Your task to perform on an android device: turn off notifications in google photos Image 0: 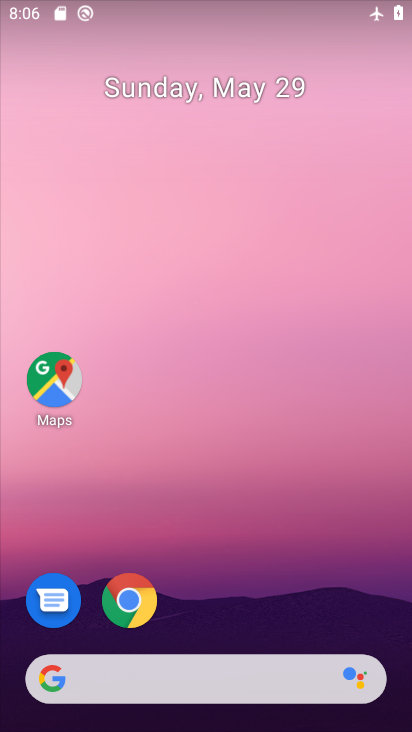
Step 0: drag from (226, 625) to (291, 5)
Your task to perform on an android device: turn off notifications in google photos Image 1: 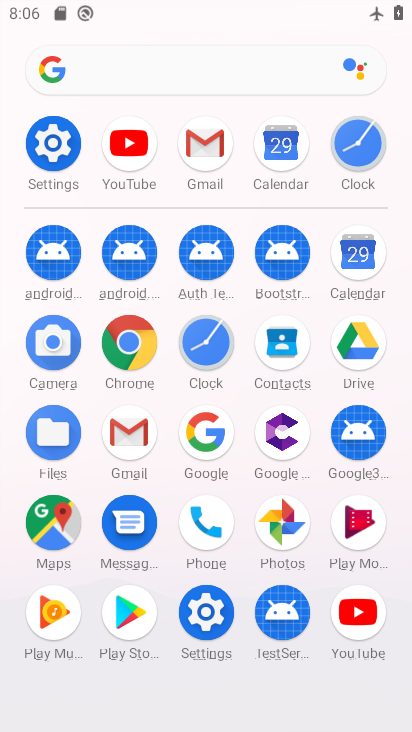
Step 1: click (292, 526)
Your task to perform on an android device: turn off notifications in google photos Image 2: 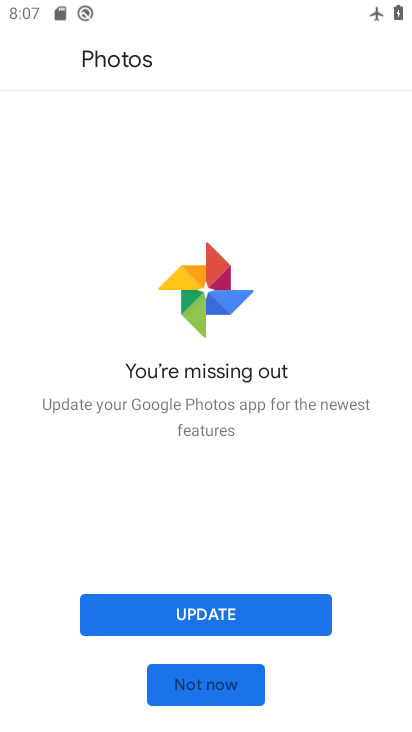
Step 2: click (221, 685)
Your task to perform on an android device: turn off notifications in google photos Image 3: 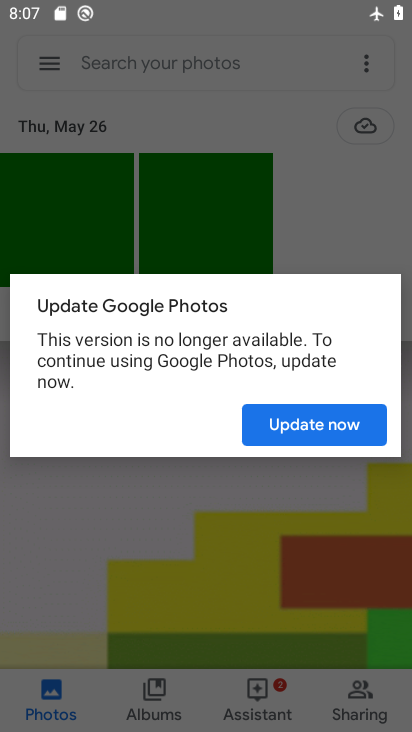
Step 3: click (333, 428)
Your task to perform on an android device: turn off notifications in google photos Image 4: 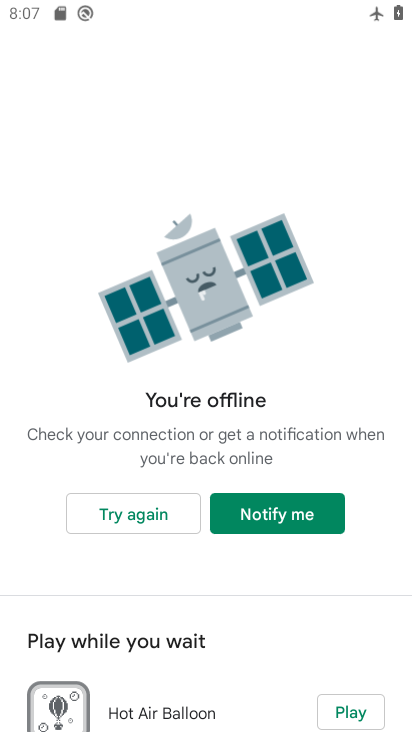
Step 4: press back button
Your task to perform on an android device: turn off notifications in google photos Image 5: 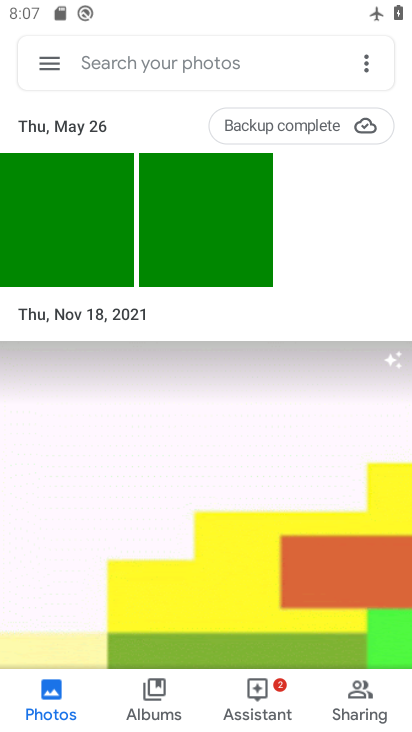
Step 5: click (52, 61)
Your task to perform on an android device: turn off notifications in google photos Image 6: 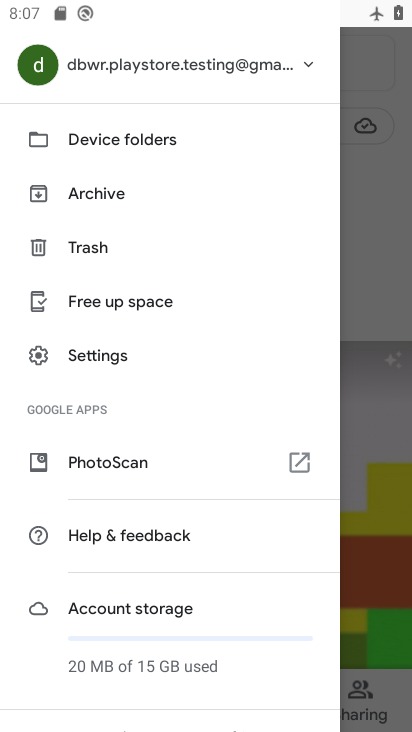
Step 6: click (124, 351)
Your task to perform on an android device: turn off notifications in google photos Image 7: 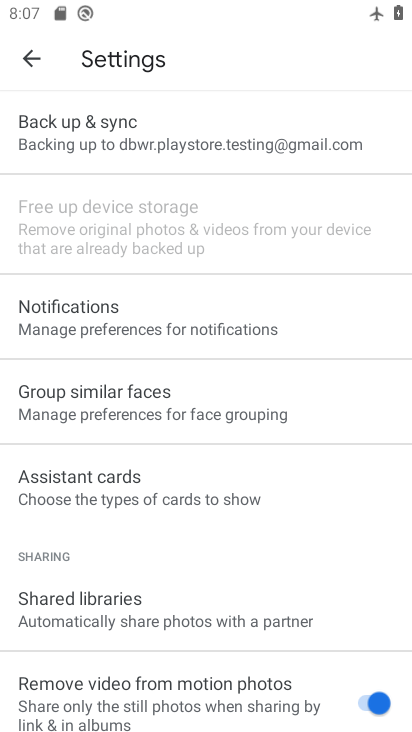
Step 7: click (114, 319)
Your task to perform on an android device: turn off notifications in google photos Image 8: 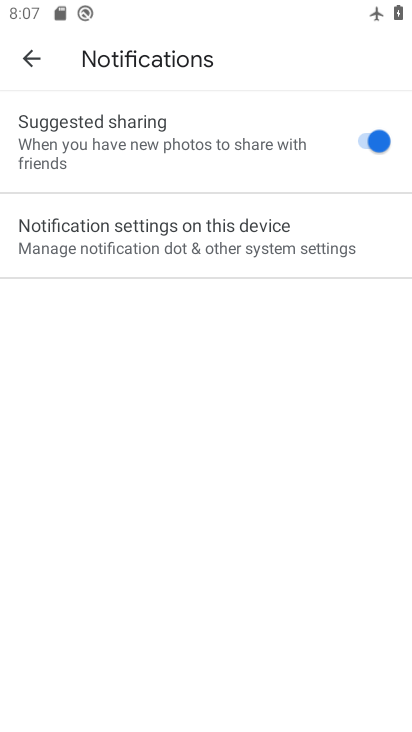
Step 8: click (305, 233)
Your task to perform on an android device: turn off notifications in google photos Image 9: 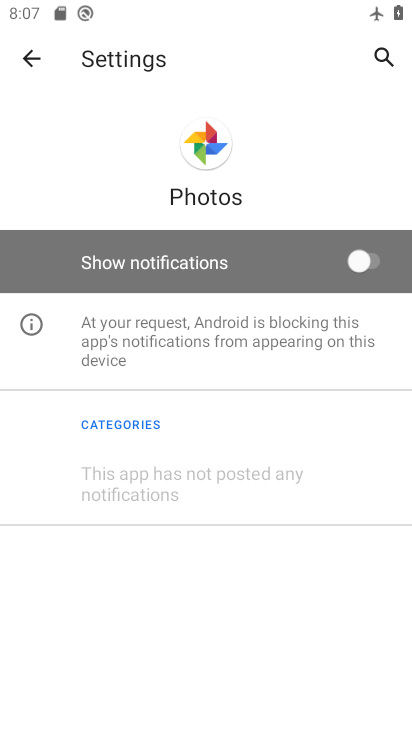
Step 9: task complete